Your task to perform on an android device: Open display settings Image 0: 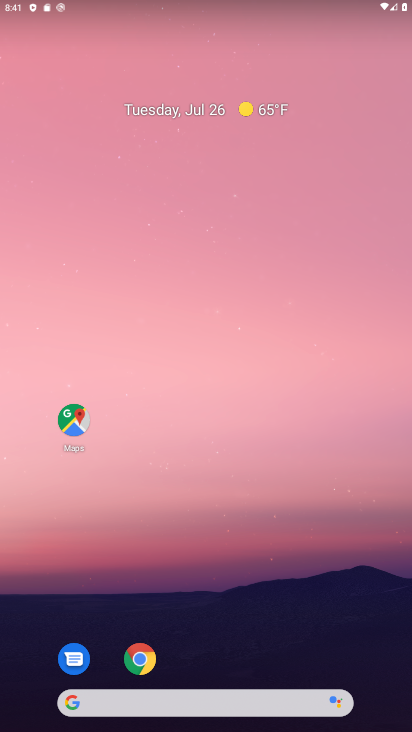
Step 0: drag from (189, 576) to (204, 107)
Your task to perform on an android device: Open display settings Image 1: 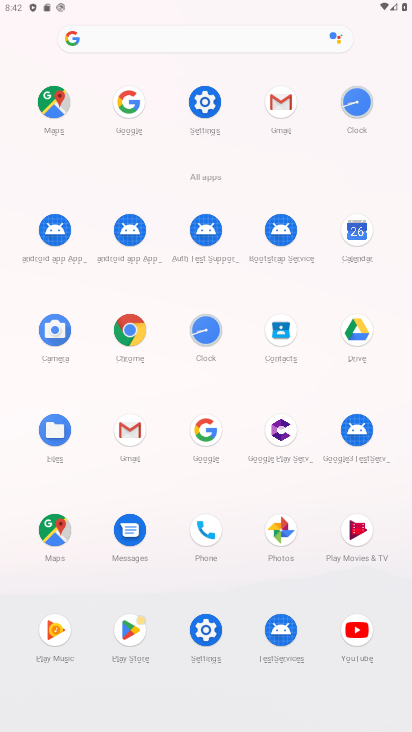
Step 1: click (200, 632)
Your task to perform on an android device: Open display settings Image 2: 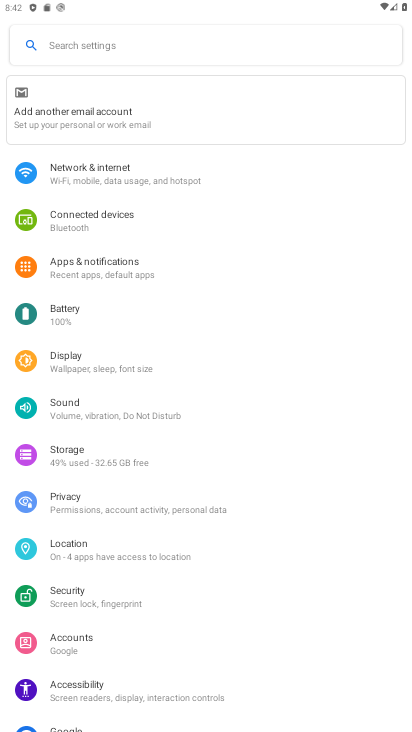
Step 2: click (72, 367)
Your task to perform on an android device: Open display settings Image 3: 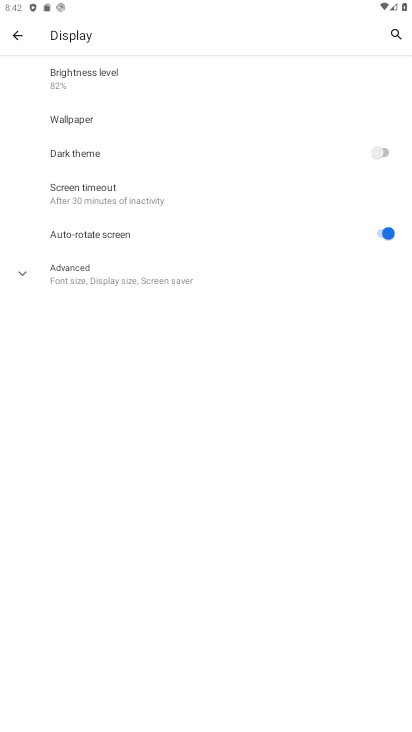
Step 3: task complete